Your task to perform on an android device: Add "logitech g pro" to the cart on target.com Image 0: 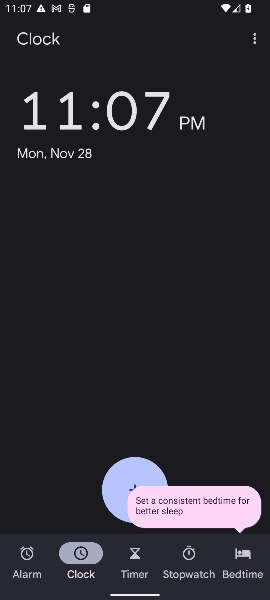
Step 0: press home button
Your task to perform on an android device: Add "logitech g pro" to the cart on target.com Image 1: 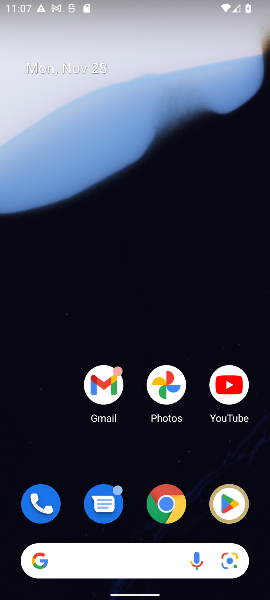
Step 1: click (167, 506)
Your task to perform on an android device: Add "logitech g pro" to the cart on target.com Image 2: 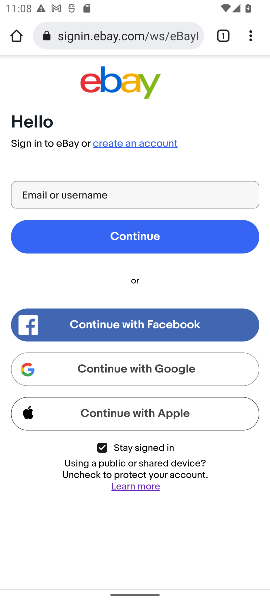
Step 2: click (91, 38)
Your task to perform on an android device: Add "logitech g pro" to the cart on target.com Image 3: 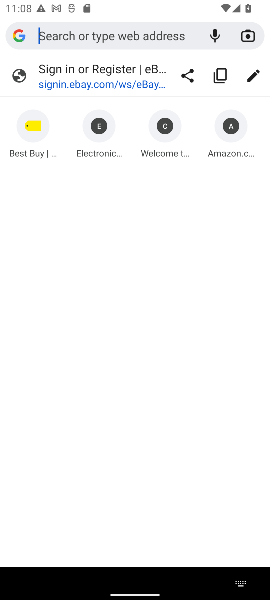
Step 3: type "target.com"
Your task to perform on an android device: Add "logitech g pro" to the cart on target.com Image 4: 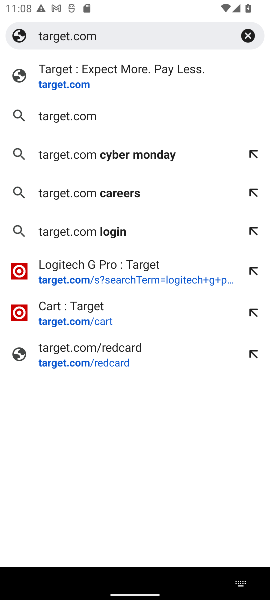
Step 4: click (54, 91)
Your task to perform on an android device: Add "logitech g pro" to the cart on target.com Image 5: 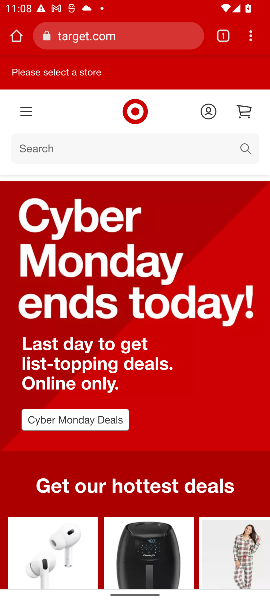
Step 5: click (57, 147)
Your task to perform on an android device: Add "logitech g pro" to the cart on target.com Image 6: 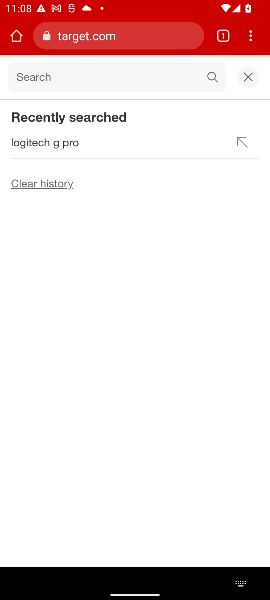
Step 6: type "logitech g pro"
Your task to perform on an android device: Add "logitech g pro" to the cart on target.com Image 7: 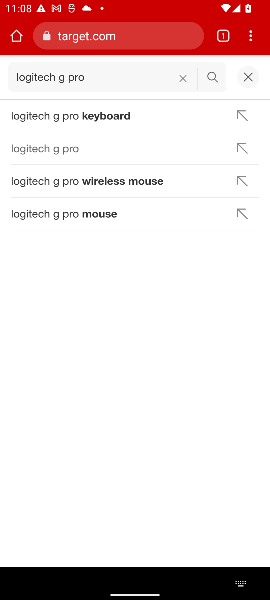
Step 7: click (45, 152)
Your task to perform on an android device: Add "logitech g pro" to the cart on target.com Image 8: 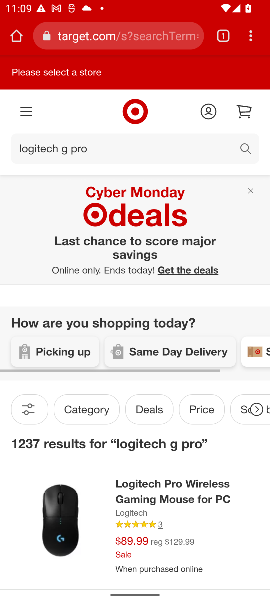
Step 8: task complete